Your task to perform on an android device: show emergency info Image 0: 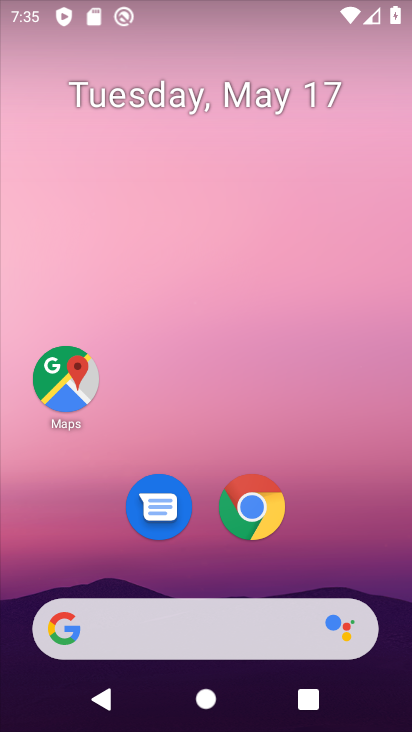
Step 0: drag from (372, 425) to (8, 209)
Your task to perform on an android device: show emergency info Image 1: 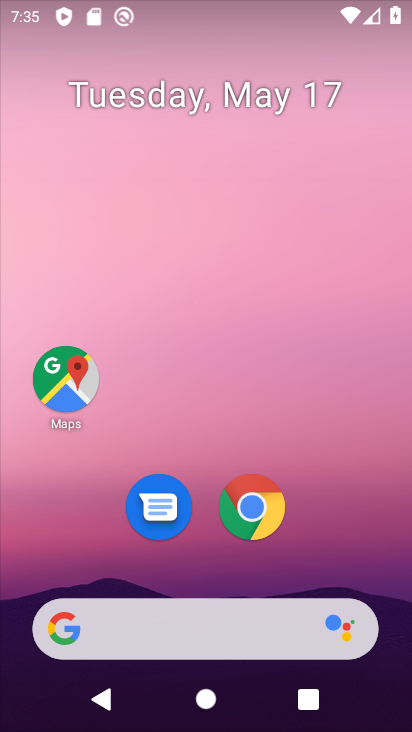
Step 1: drag from (376, 581) to (251, 17)
Your task to perform on an android device: show emergency info Image 2: 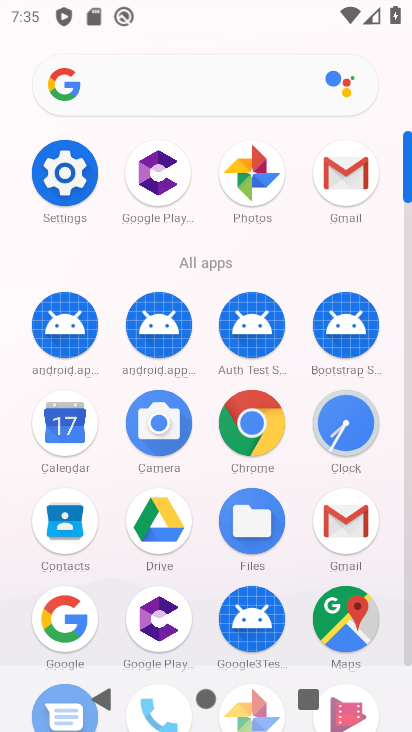
Step 2: click (66, 178)
Your task to perform on an android device: show emergency info Image 3: 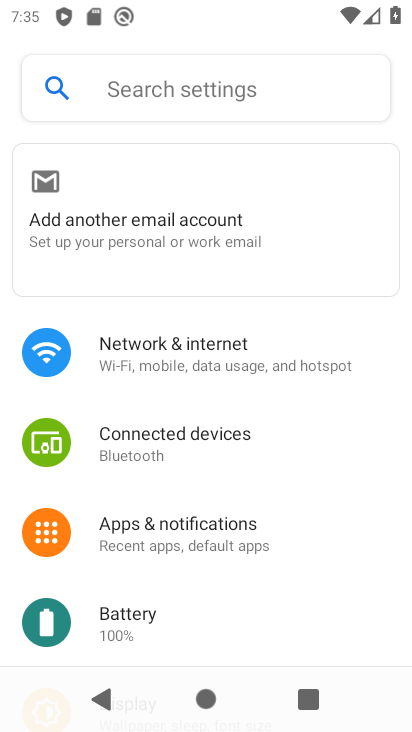
Step 3: drag from (320, 608) to (298, 145)
Your task to perform on an android device: show emergency info Image 4: 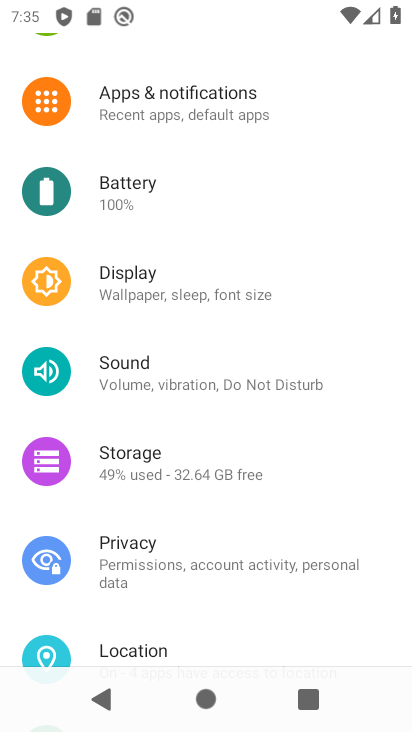
Step 4: drag from (296, 561) to (264, 57)
Your task to perform on an android device: show emergency info Image 5: 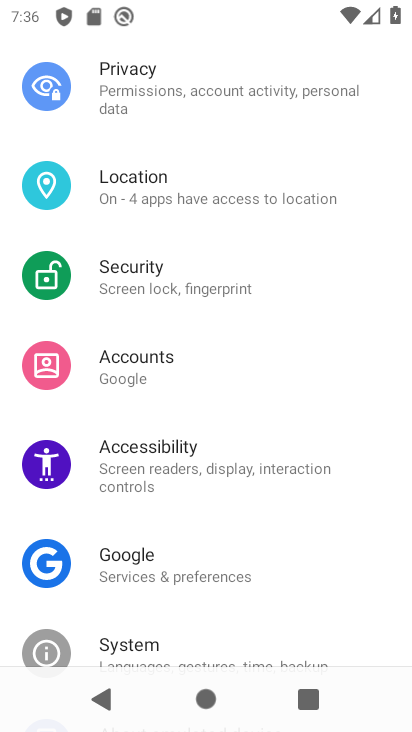
Step 5: drag from (258, 510) to (248, 56)
Your task to perform on an android device: show emergency info Image 6: 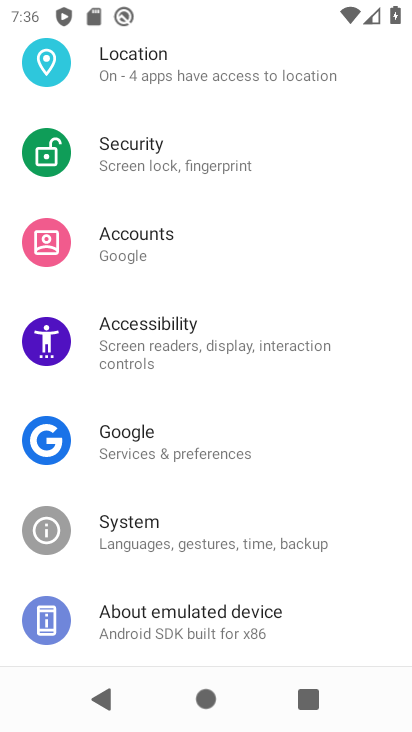
Step 6: click (180, 618)
Your task to perform on an android device: show emergency info Image 7: 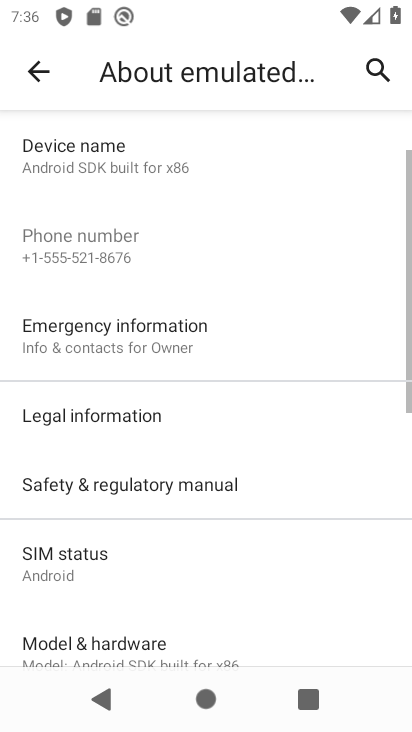
Step 7: click (103, 327)
Your task to perform on an android device: show emergency info Image 8: 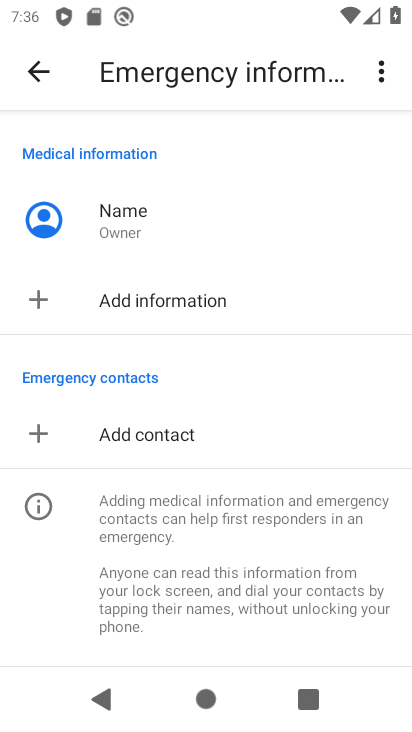
Step 8: task complete